Your task to perform on an android device: turn off sleep mode Image 0: 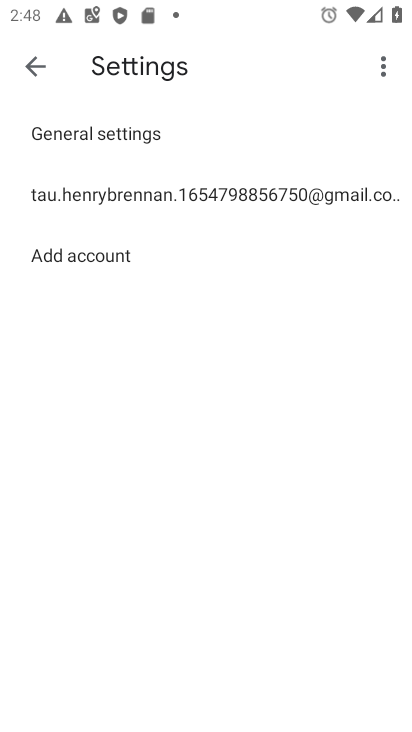
Step 0: press home button
Your task to perform on an android device: turn off sleep mode Image 1: 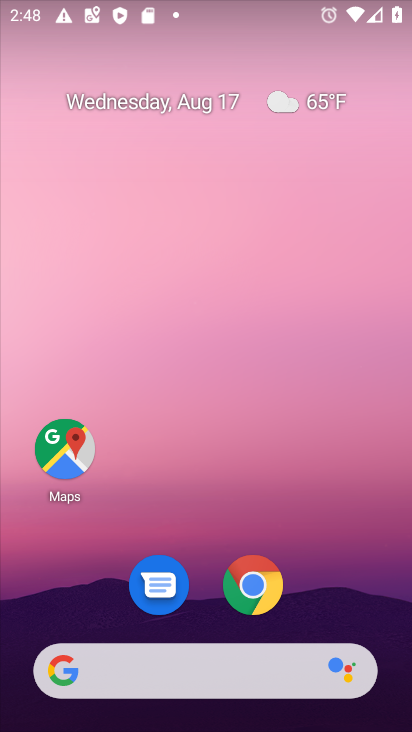
Step 1: drag from (268, 495) to (248, 12)
Your task to perform on an android device: turn off sleep mode Image 2: 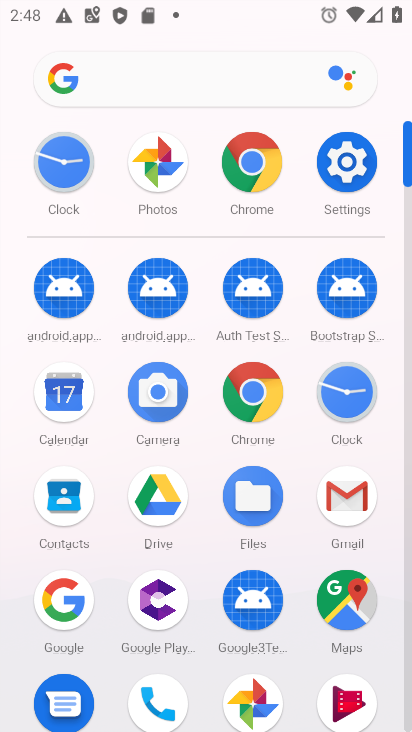
Step 2: click (346, 157)
Your task to perform on an android device: turn off sleep mode Image 3: 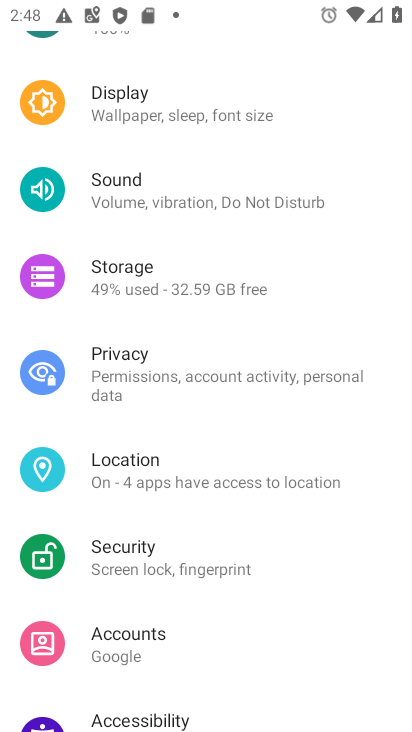
Step 3: drag from (212, 211) to (257, 451)
Your task to perform on an android device: turn off sleep mode Image 4: 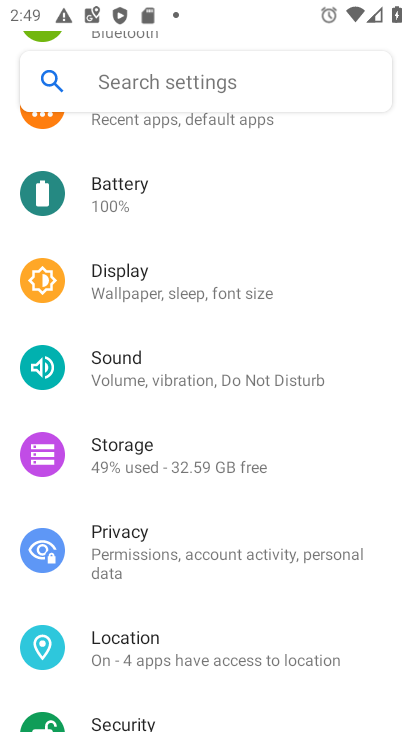
Step 4: drag from (180, 245) to (233, 560)
Your task to perform on an android device: turn off sleep mode Image 5: 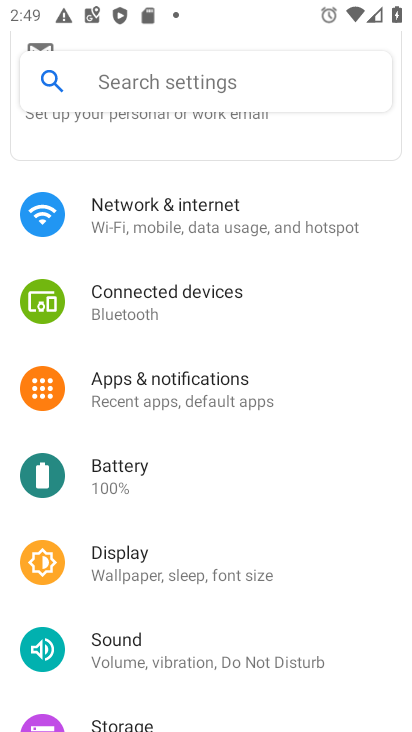
Step 5: click (205, 560)
Your task to perform on an android device: turn off sleep mode Image 6: 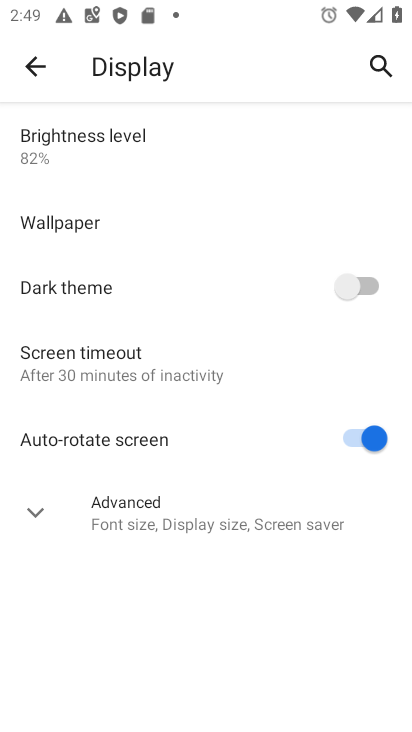
Step 6: click (36, 509)
Your task to perform on an android device: turn off sleep mode Image 7: 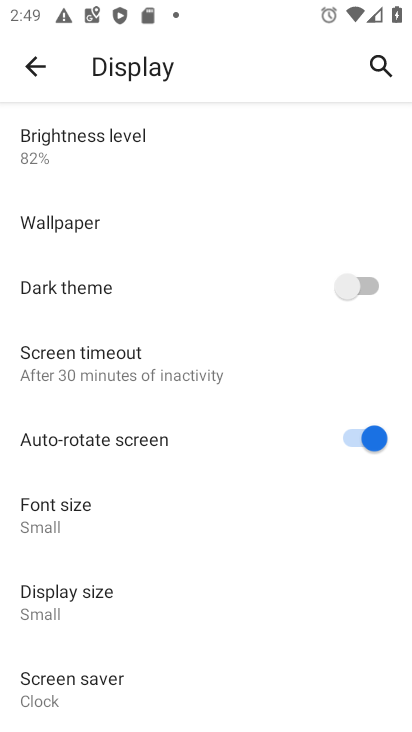
Step 7: task complete